Your task to perform on an android device: What is the news today? Image 0: 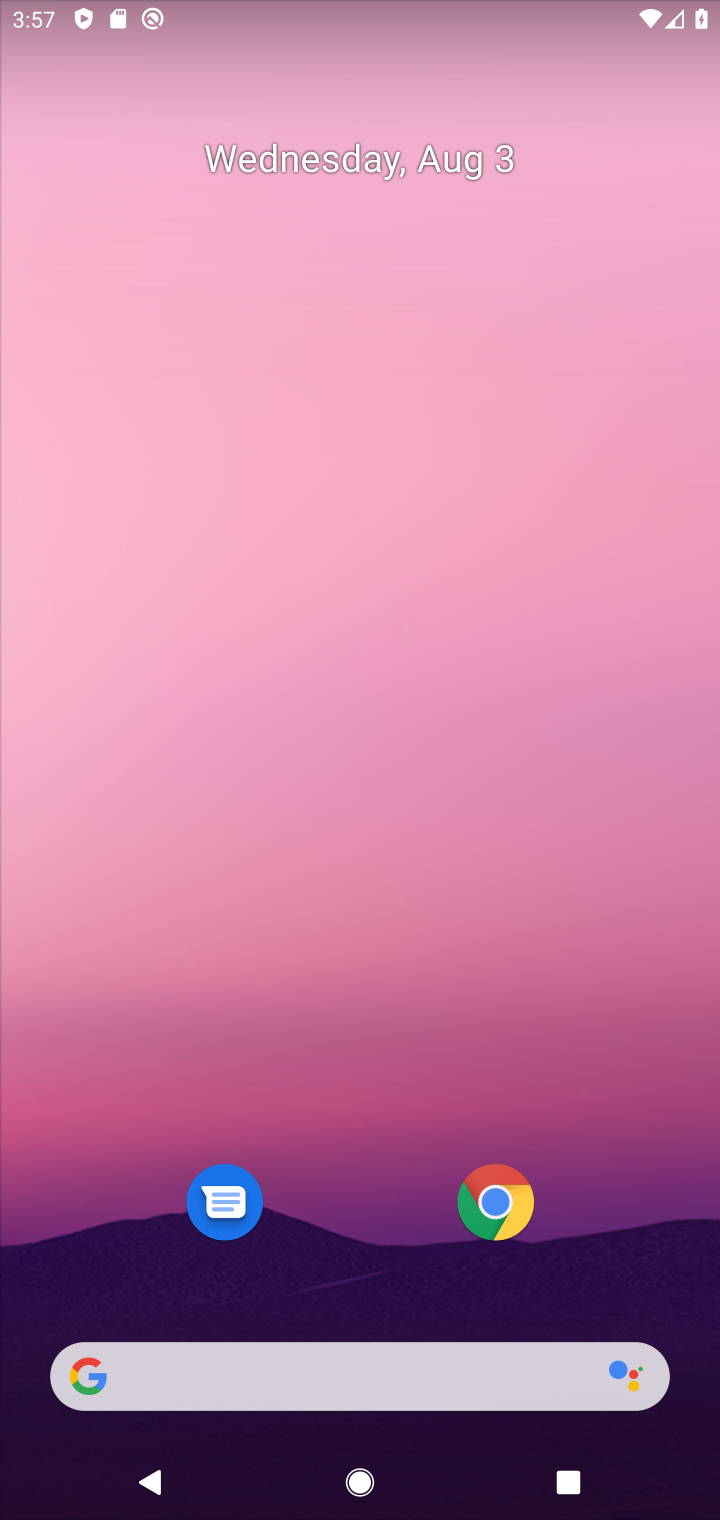
Step 0: click (293, 1372)
Your task to perform on an android device: What is the news today? Image 1: 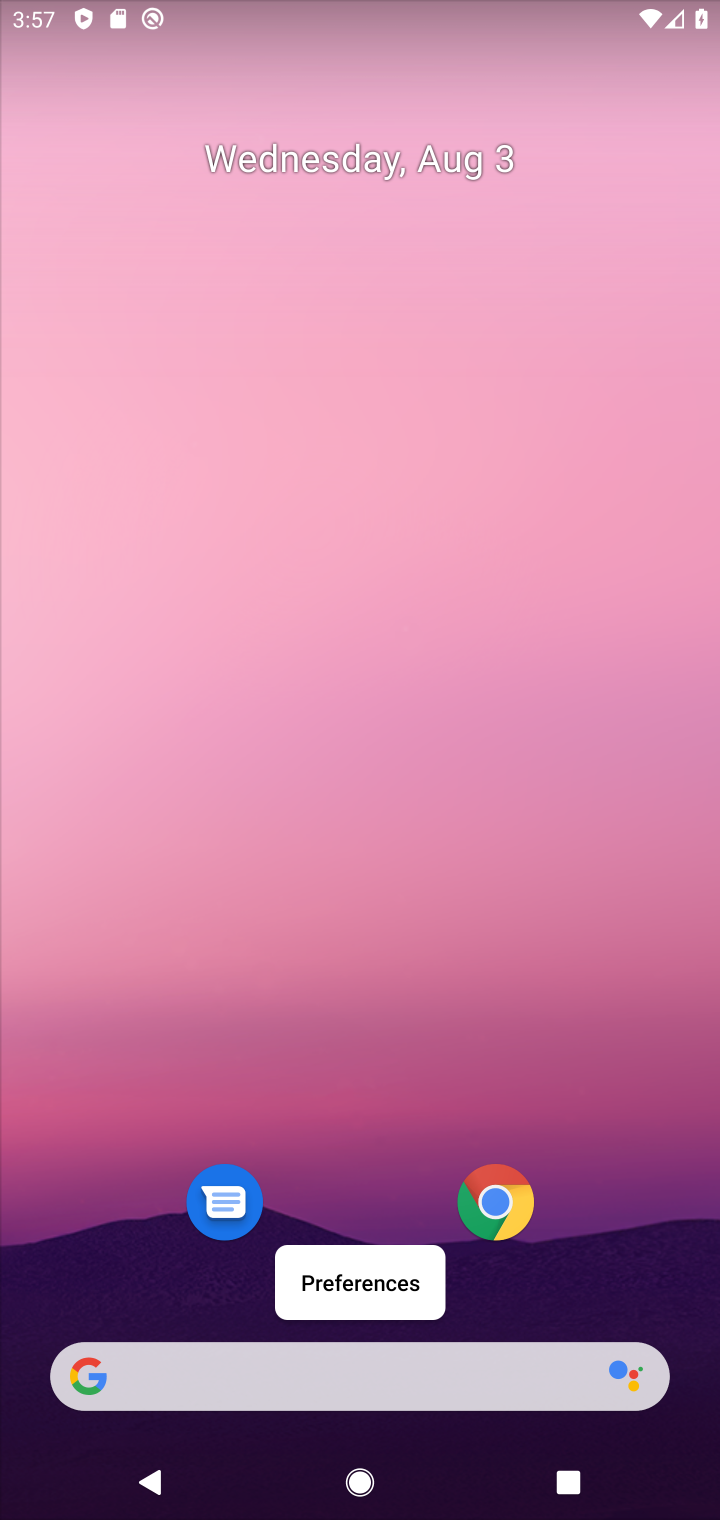
Step 1: click (318, 1389)
Your task to perform on an android device: What is the news today? Image 2: 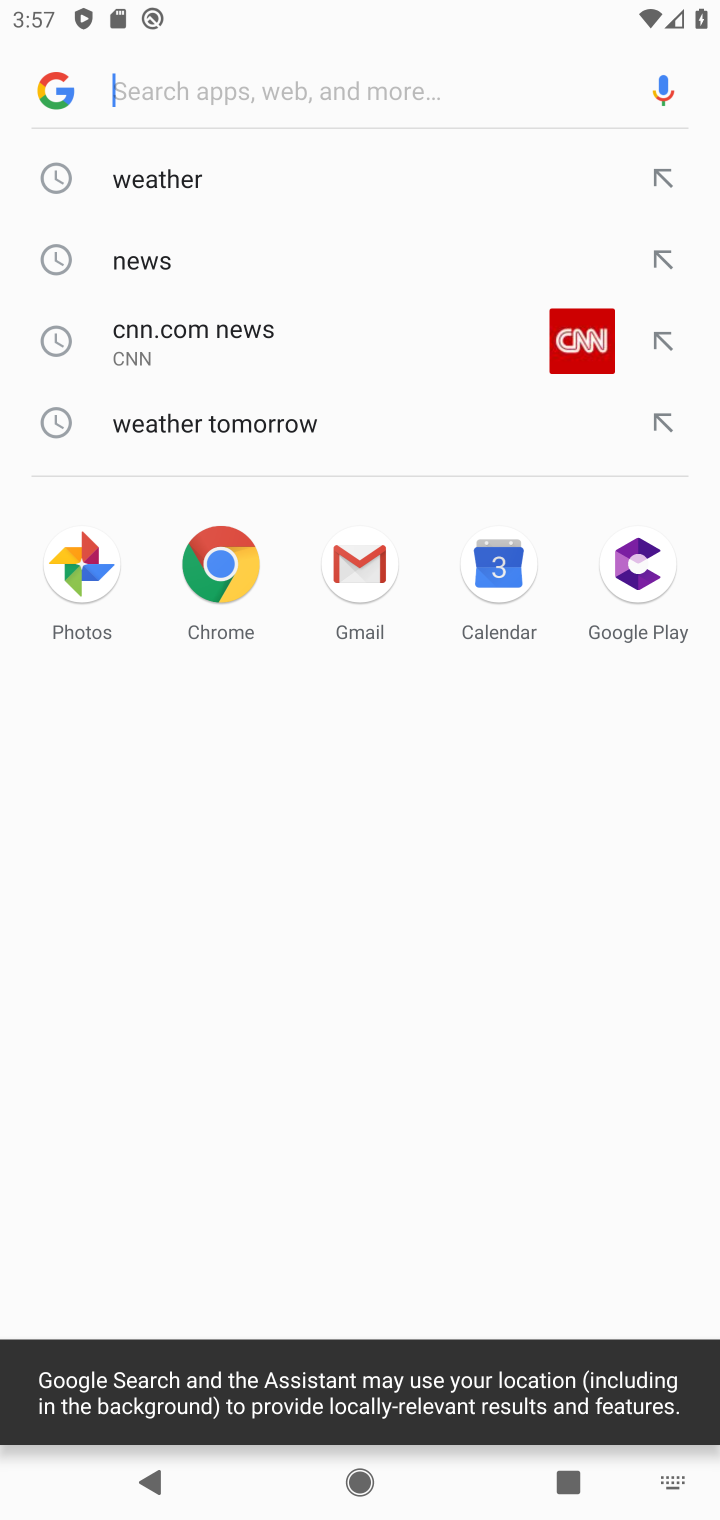
Step 2: click (167, 79)
Your task to perform on an android device: What is the news today? Image 3: 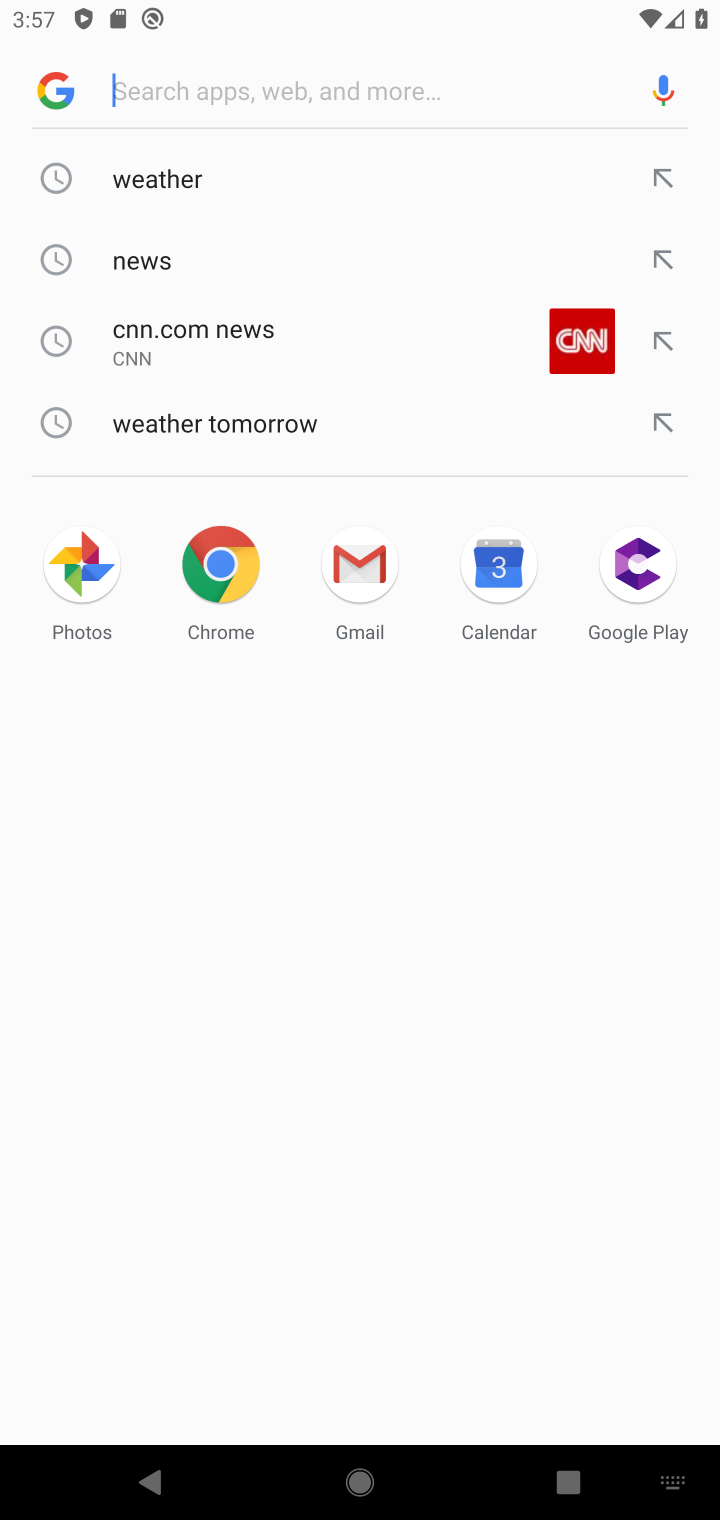
Step 3: type "news today"
Your task to perform on an android device: What is the news today? Image 4: 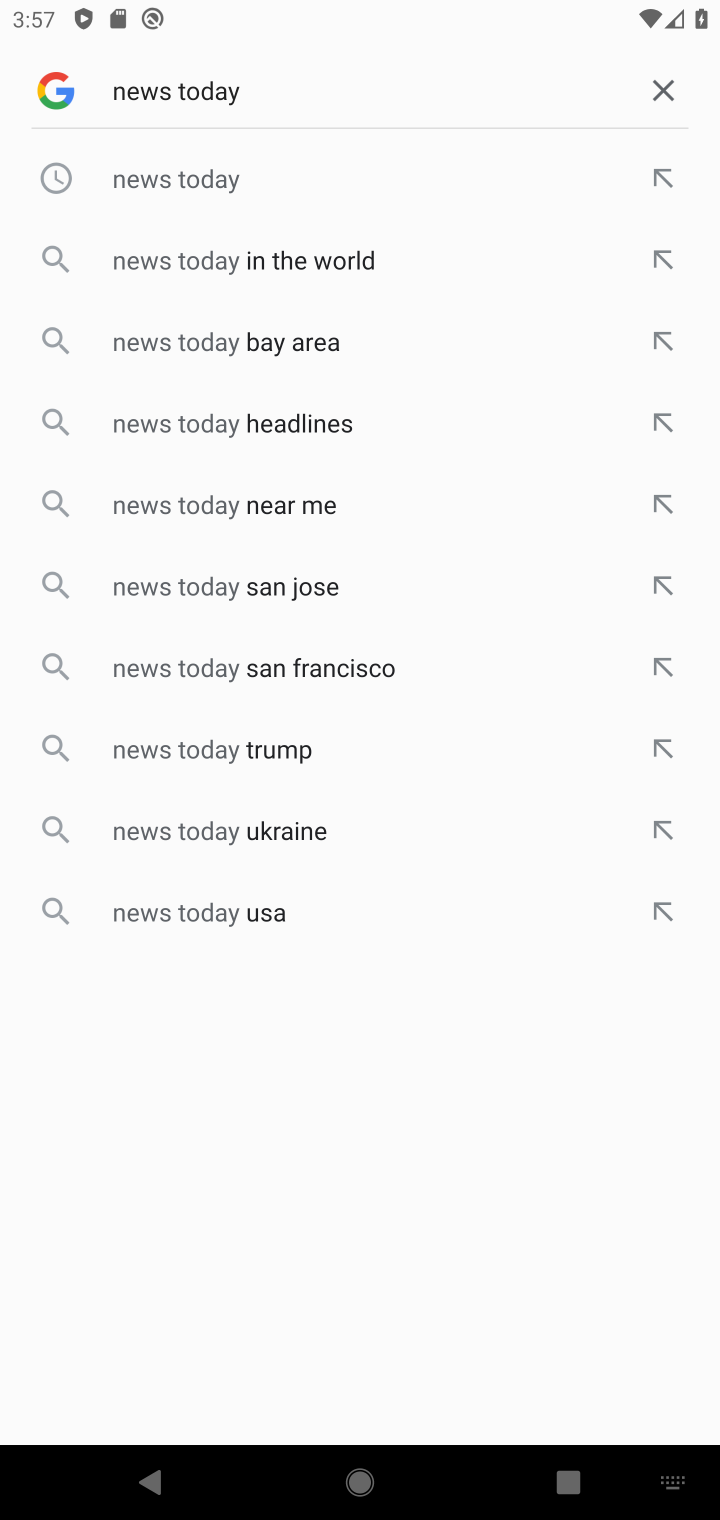
Step 4: click (242, 183)
Your task to perform on an android device: What is the news today? Image 5: 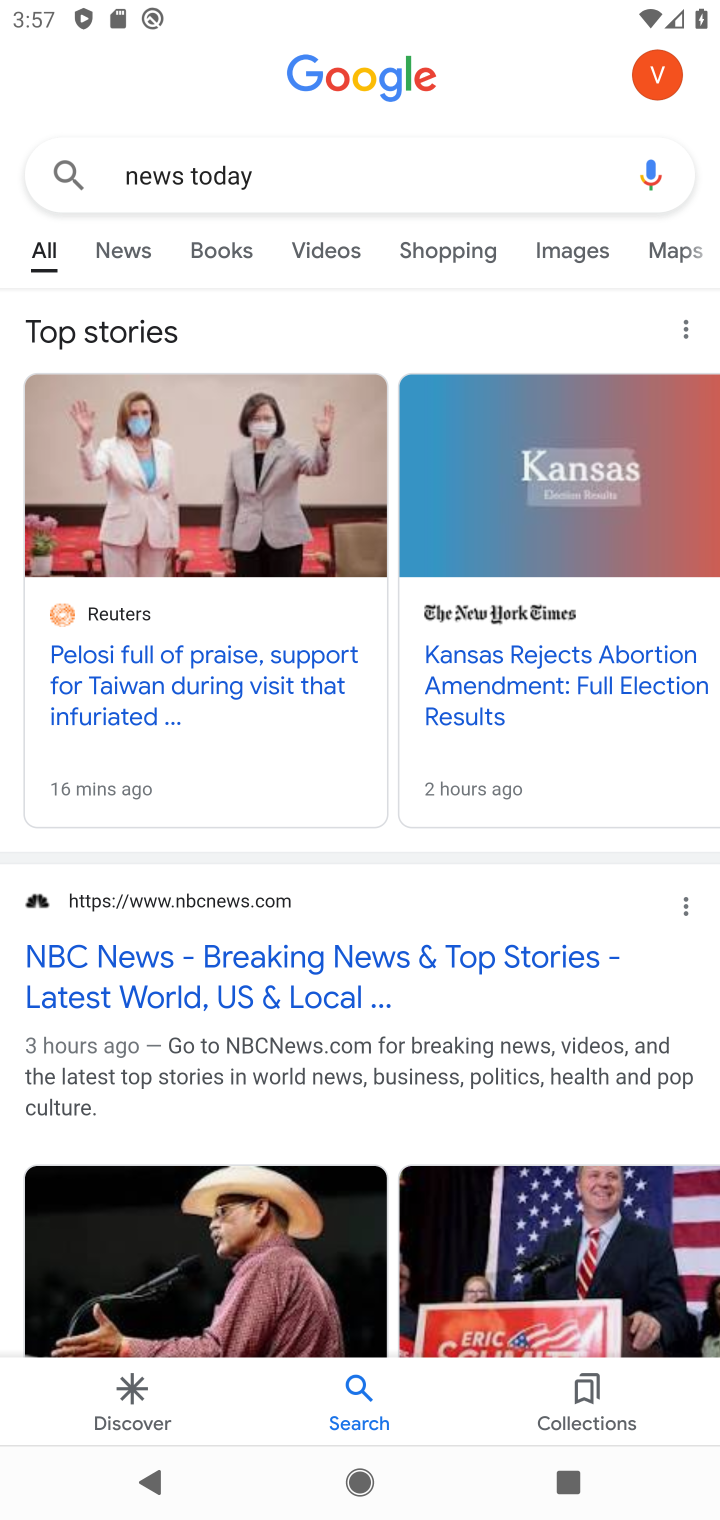
Step 5: task complete